Your task to perform on an android device: Clear the cart on ebay. Search for "dell xps" on ebay, select the first entry, add it to the cart, then select checkout. Image 0: 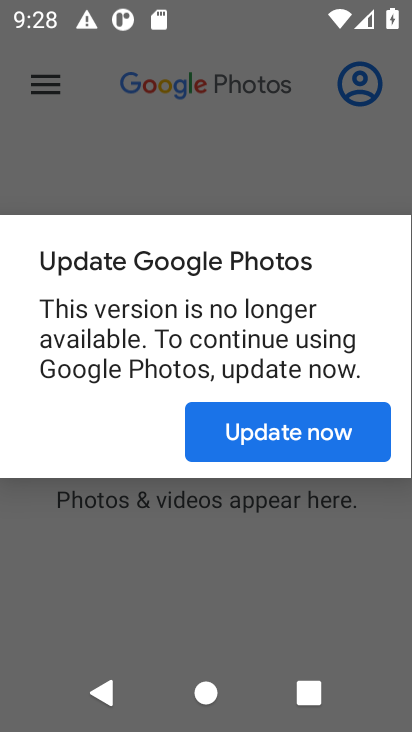
Step 0: press home button
Your task to perform on an android device: Clear the cart on ebay. Search for "dell xps" on ebay, select the first entry, add it to the cart, then select checkout. Image 1: 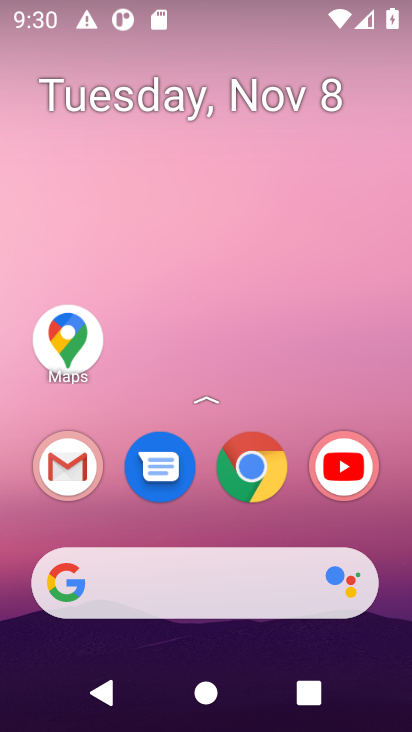
Step 1: click (229, 572)
Your task to perform on an android device: Clear the cart on ebay. Search for "dell xps" on ebay, select the first entry, add it to the cart, then select checkout. Image 2: 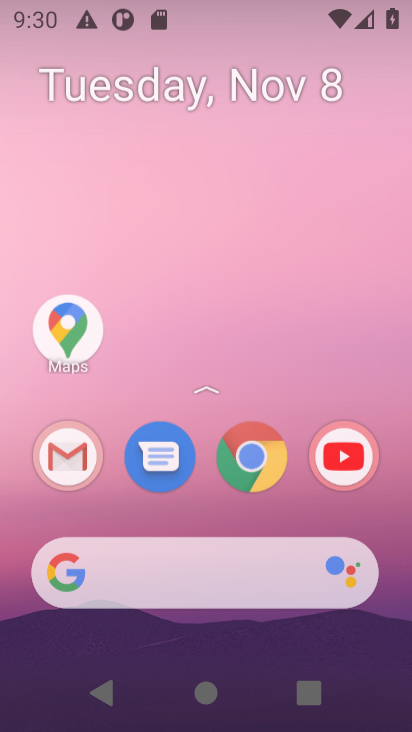
Step 2: task complete